Your task to perform on an android device: open app "Truecaller" (install if not already installed) Image 0: 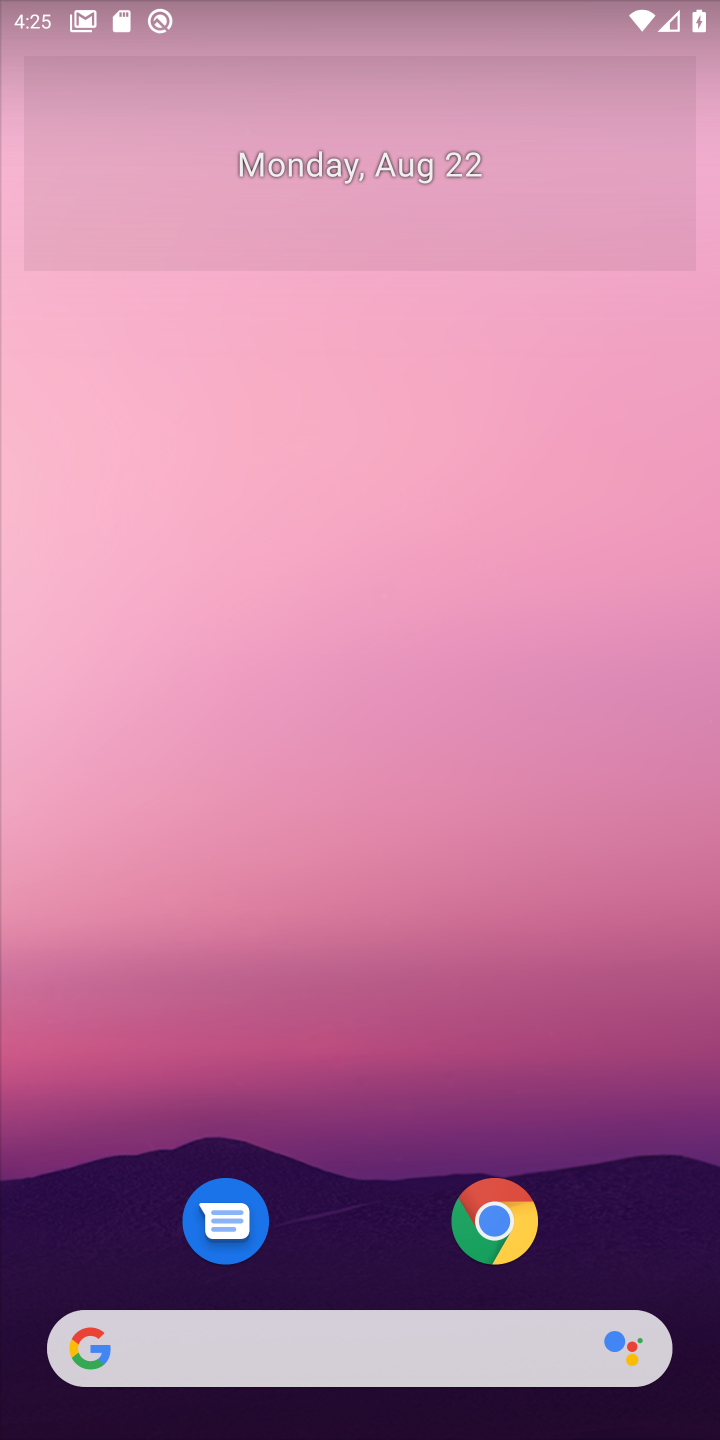
Step 0: drag from (425, 908) to (410, 19)
Your task to perform on an android device: open app "Truecaller" (install if not already installed) Image 1: 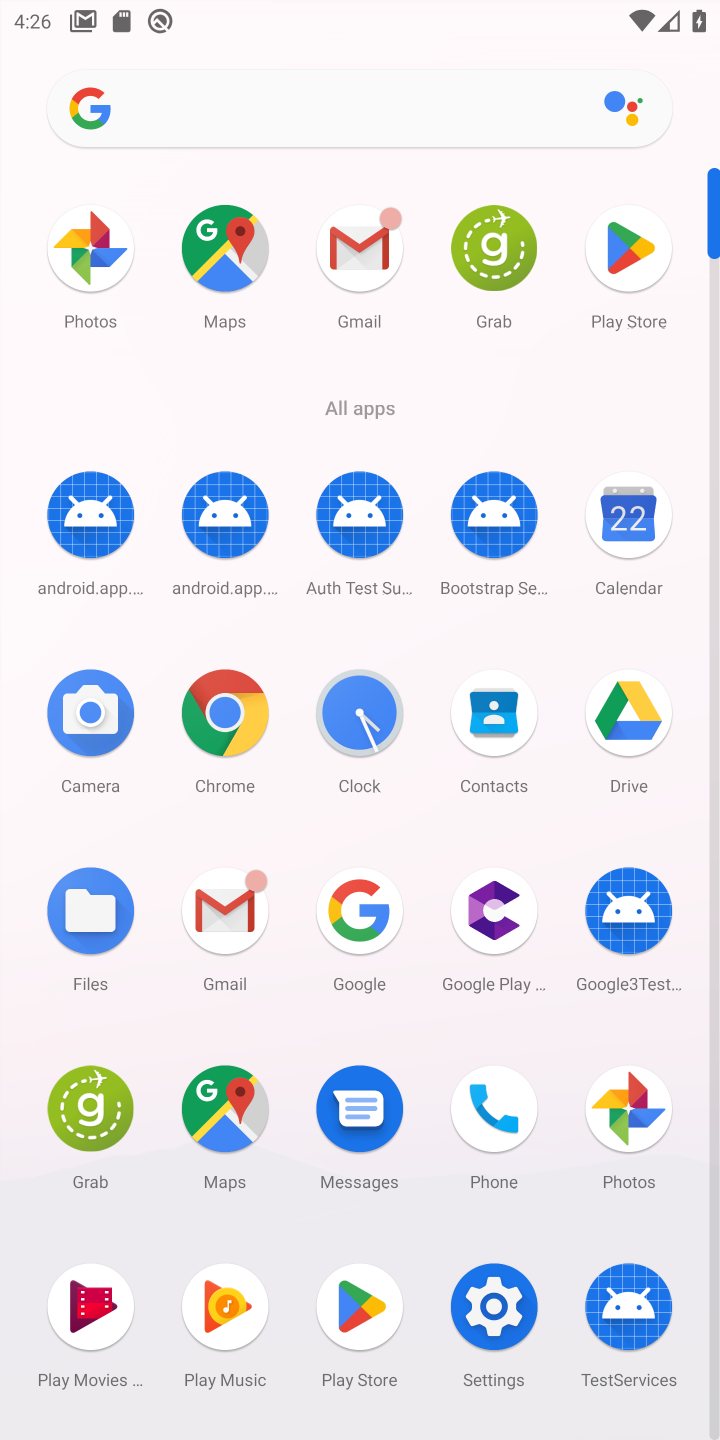
Step 1: click (618, 251)
Your task to perform on an android device: open app "Truecaller" (install if not already installed) Image 2: 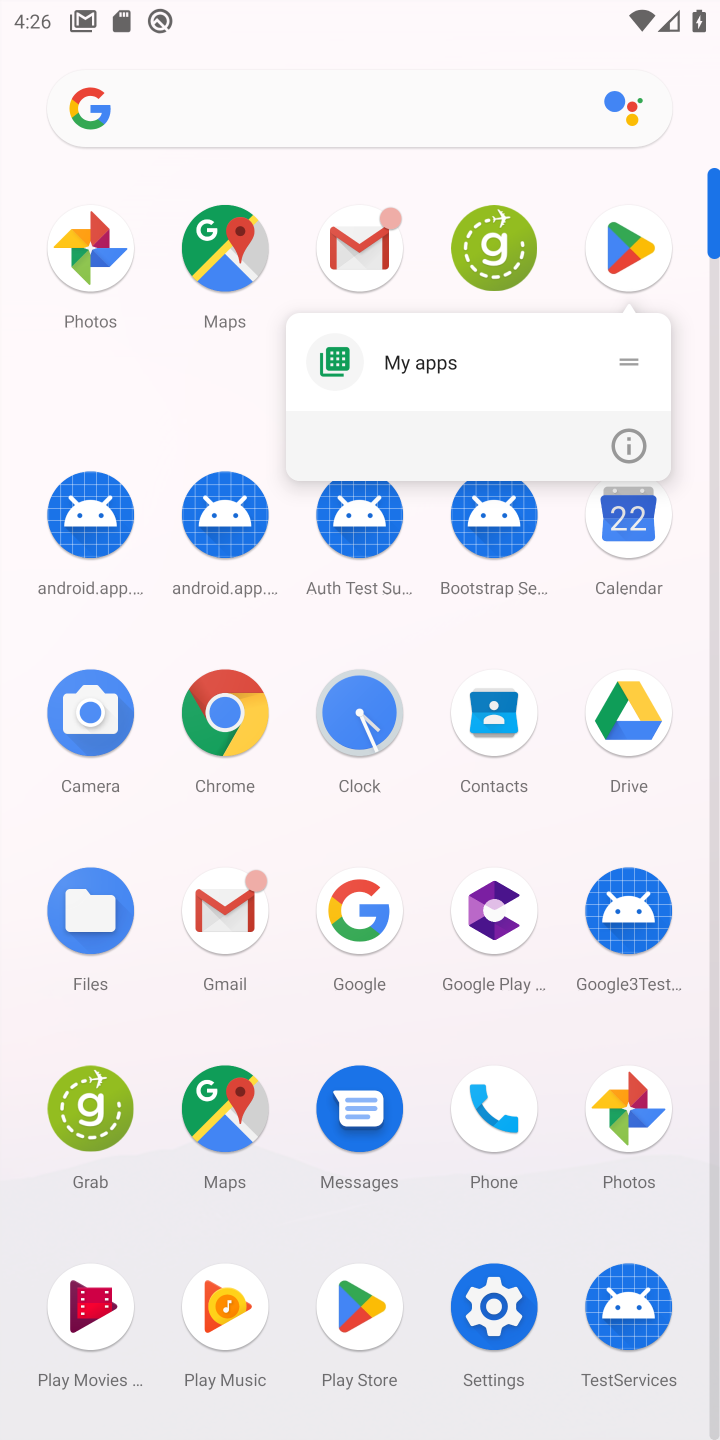
Step 2: click (618, 251)
Your task to perform on an android device: open app "Truecaller" (install if not already installed) Image 3: 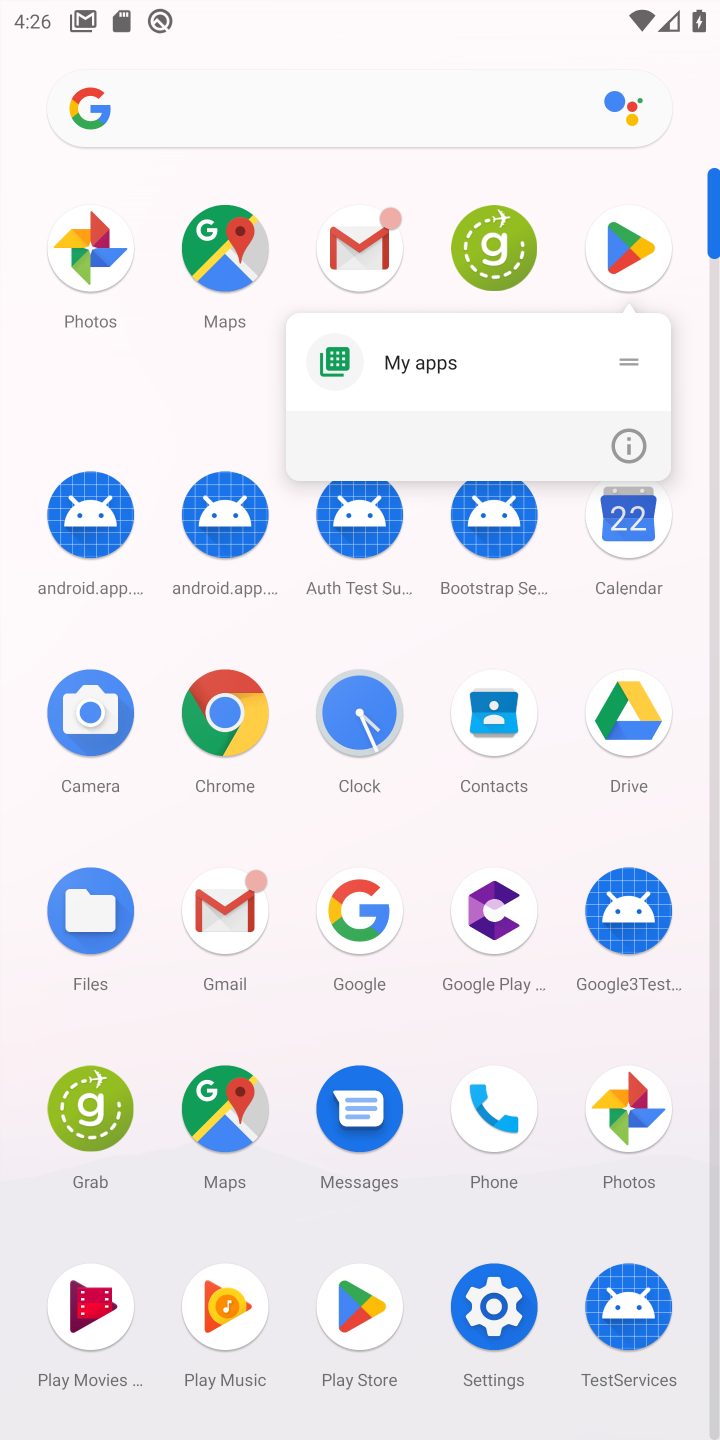
Step 3: click (618, 249)
Your task to perform on an android device: open app "Truecaller" (install if not already installed) Image 4: 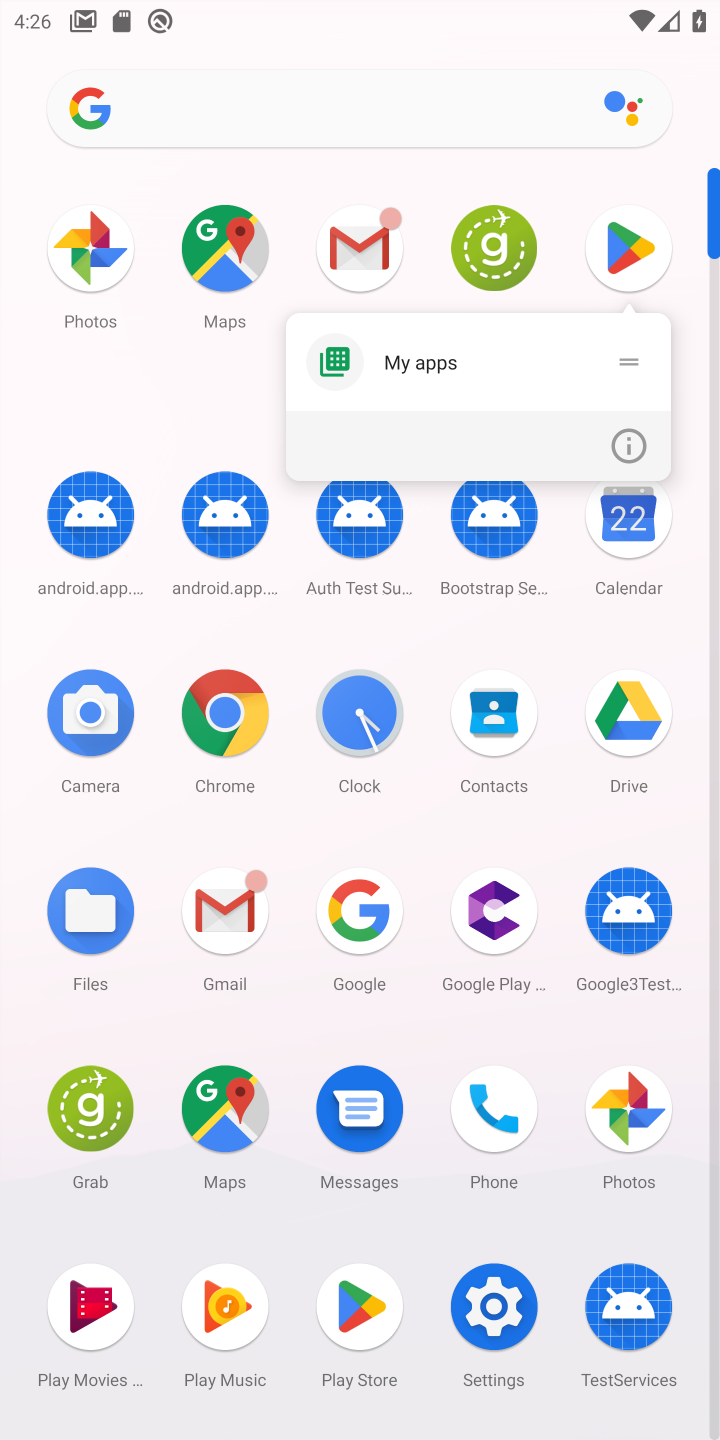
Step 4: click (618, 249)
Your task to perform on an android device: open app "Truecaller" (install if not already installed) Image 5: 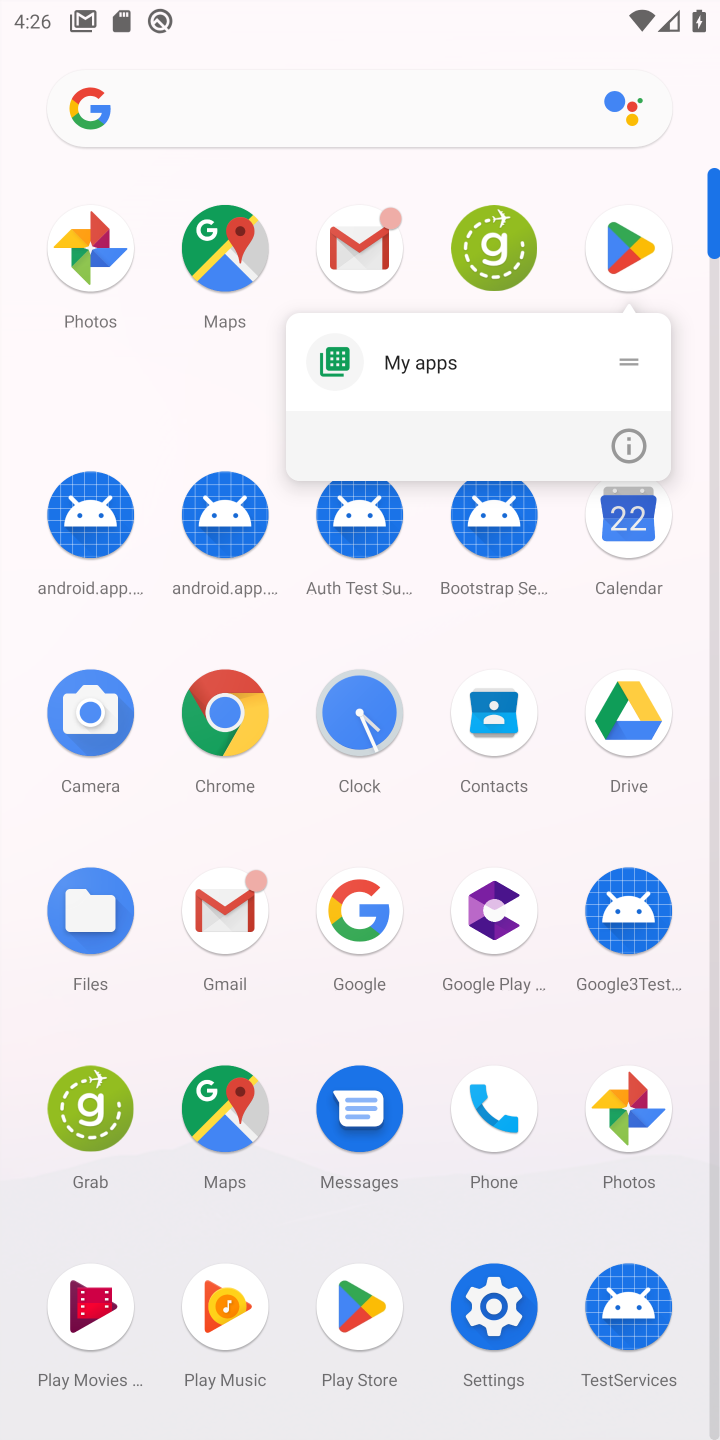
Step 5: click (605, 241)
Your task to perform on an android device: open app "Truecaller" (install if not already installed) Image 6: 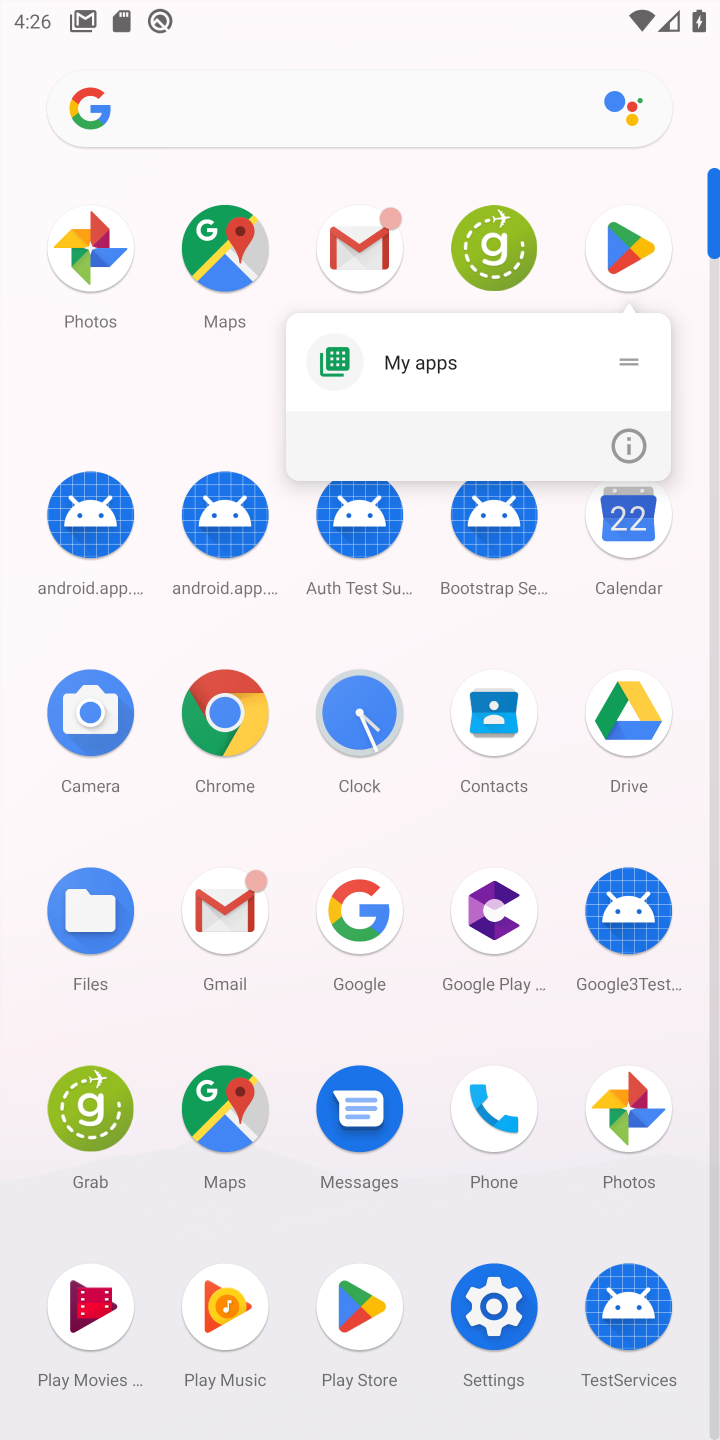
Step 6: click (603, 236)
Your task to perform on an android device: open app "Truecaller" (install if not already installed) Image 7: 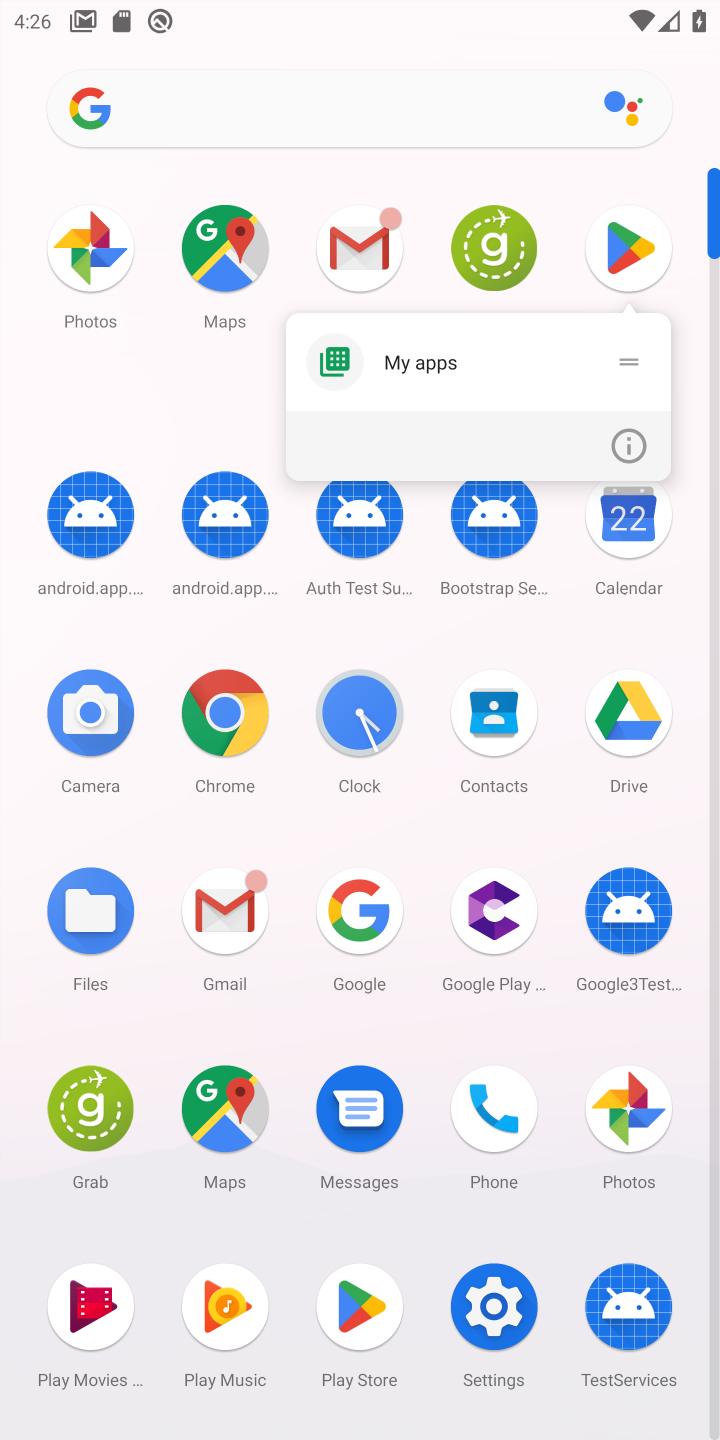
Step 7: click (617, 260)
Your task to perform on an android device: open app "Truecaller" (install if not already installed) Image 8: 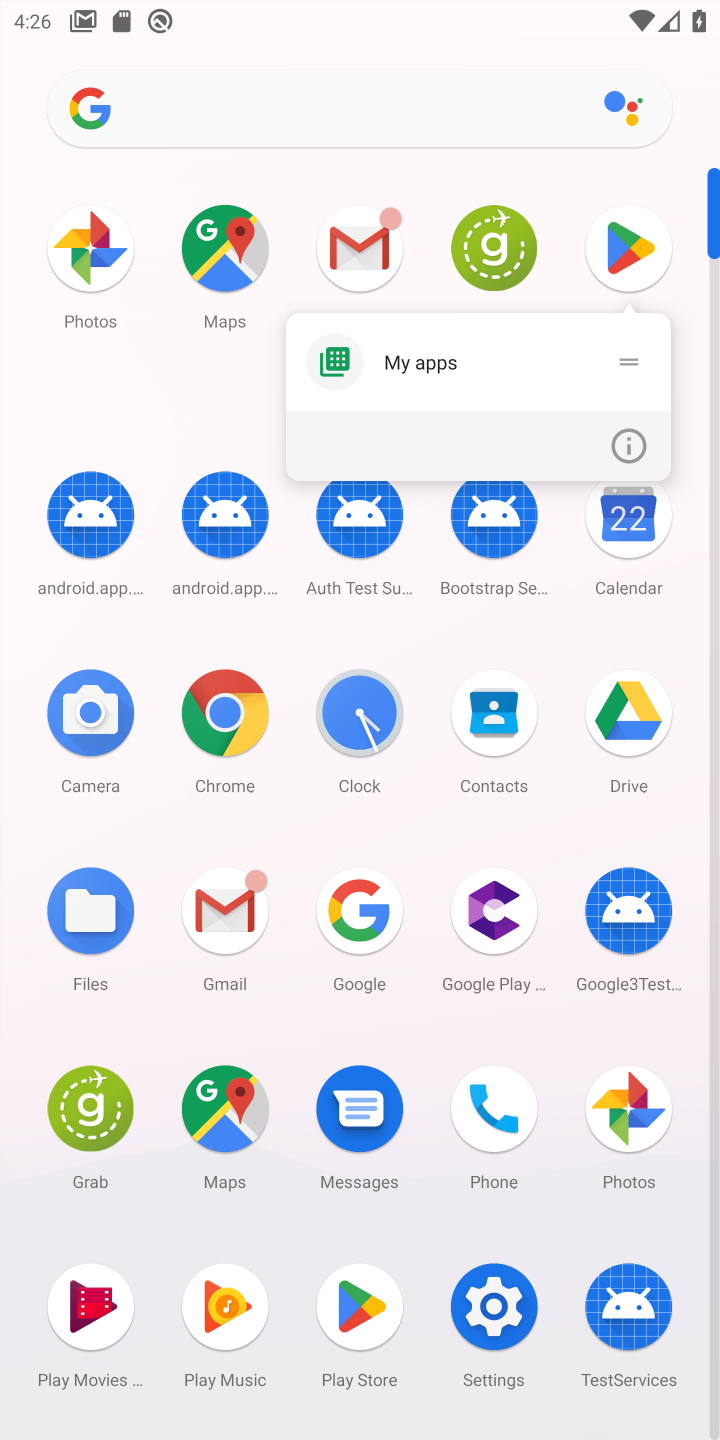
Step 8: click (634, 255)
Your task to perform on an android device: open app "Truecaller" (install if not already installed) Image 9: 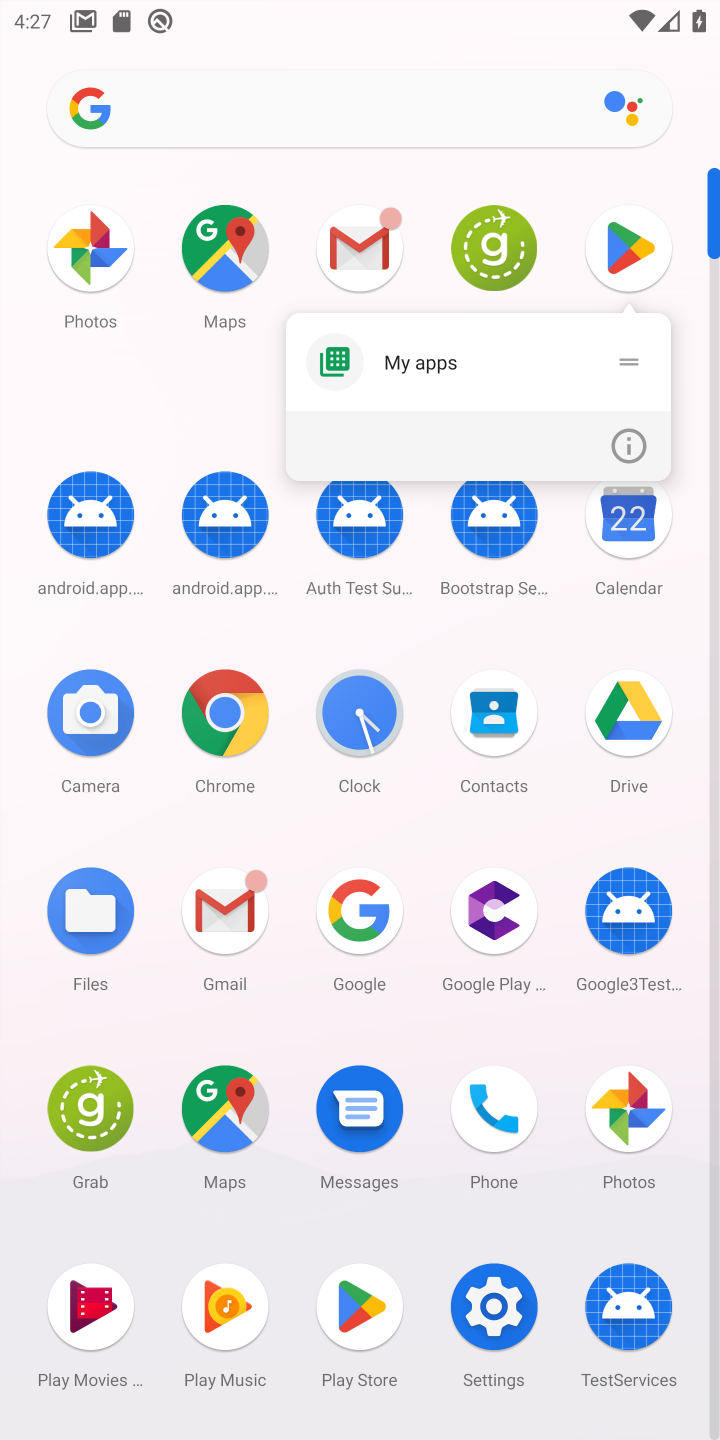
Step 9: click (617, 255)
Your task to perform on an android device: open app "Truecaller" (install if not already installed) Image 10: 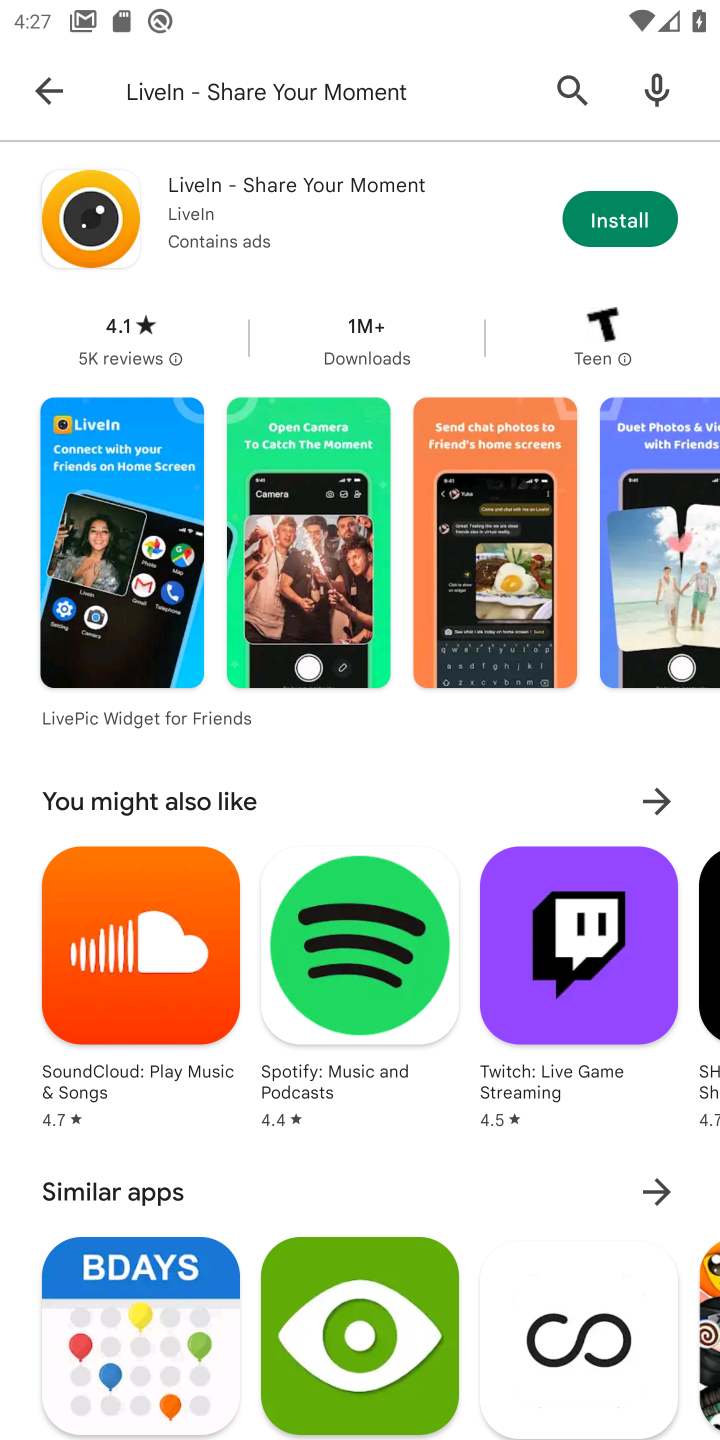
Step 10: press back button
Your task to perform on an android device: open app "Truecaller" (install if not already installed) Image 11: 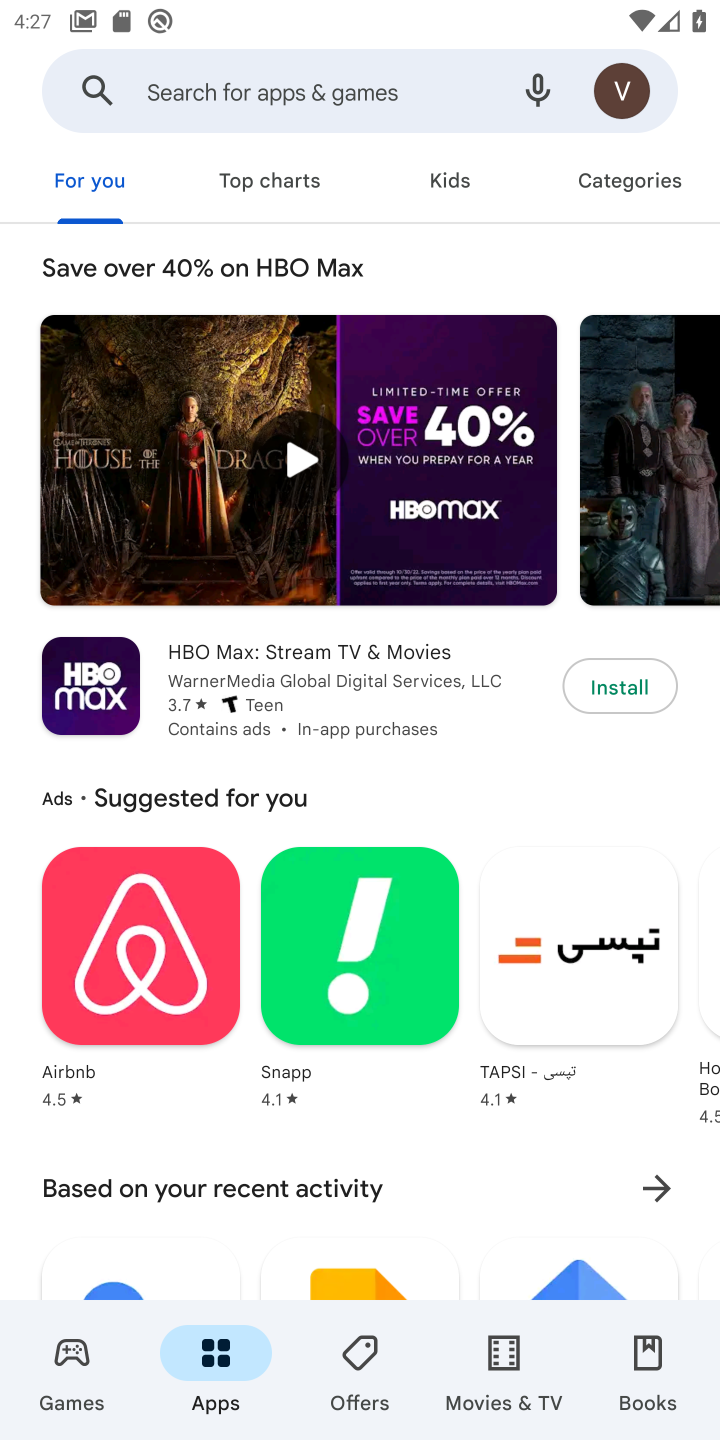
Step 11: click (198, 91)
Your task to perform on an android device: open app "Truecaller" (install if not already installed) Image 12: 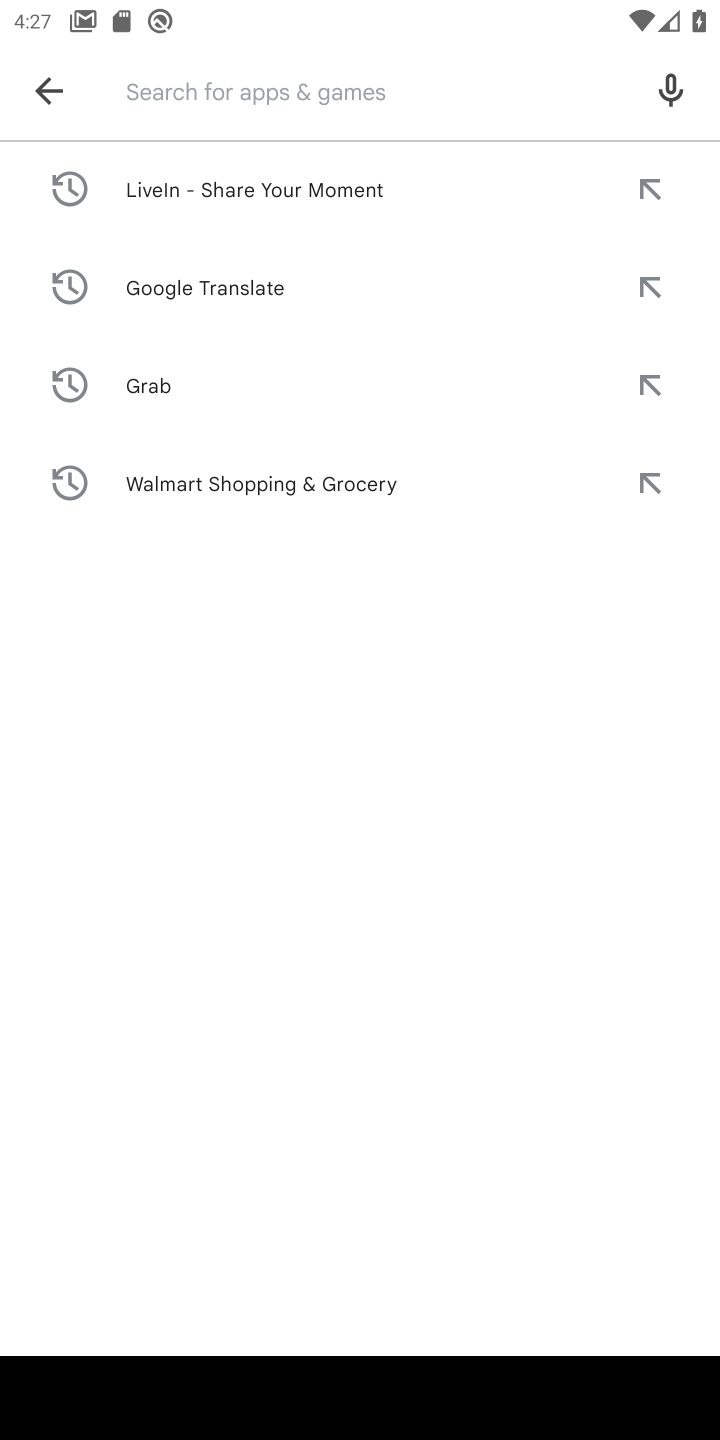
Step 12: type "Truecaller"
Your task to perform on an android device: open app "Truecaller" (install if not already installed) Image 13: 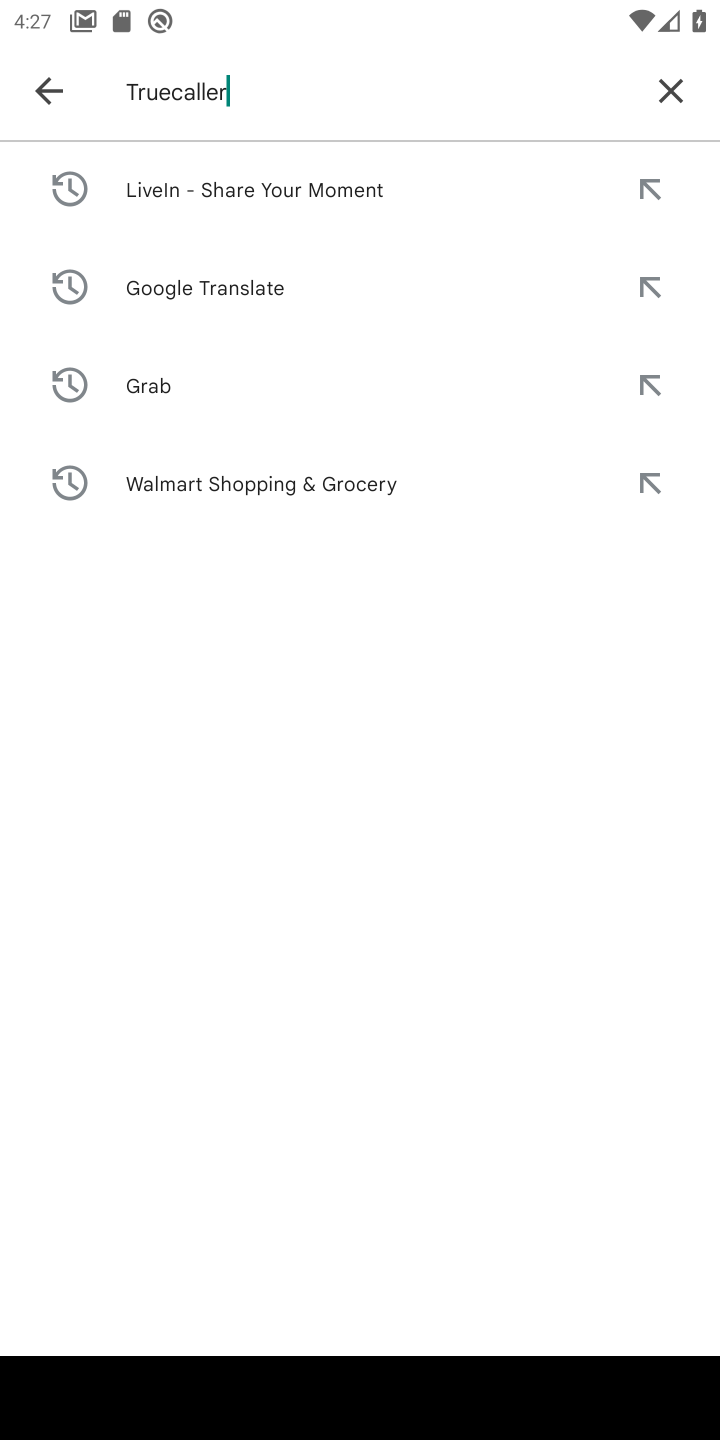
Step 13: press enter
Your task to perform on an android device: open app "Truecaller" (install if not already installed) Image 14: 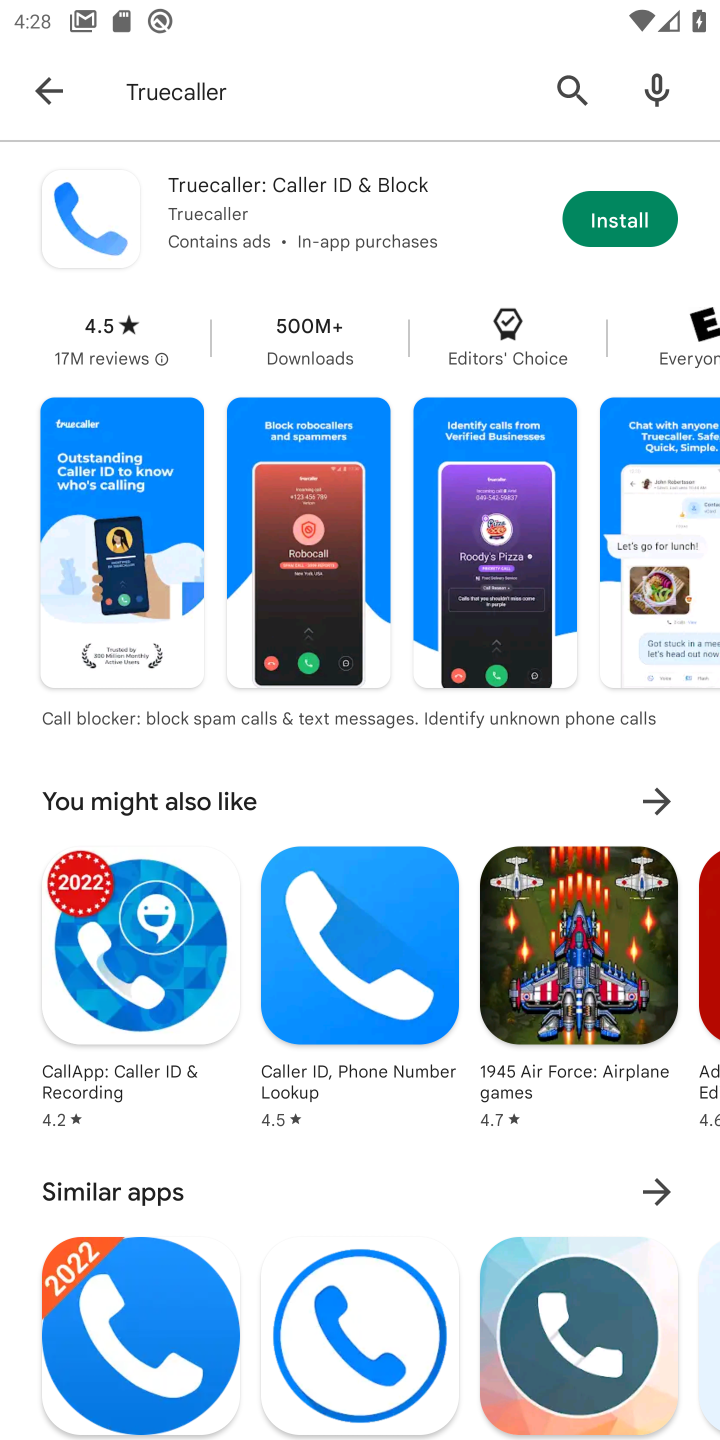
Step 14: click (626, 214)
Your task to perform on an android device: open app "Truecaller" (install if not already installed) Image 15: 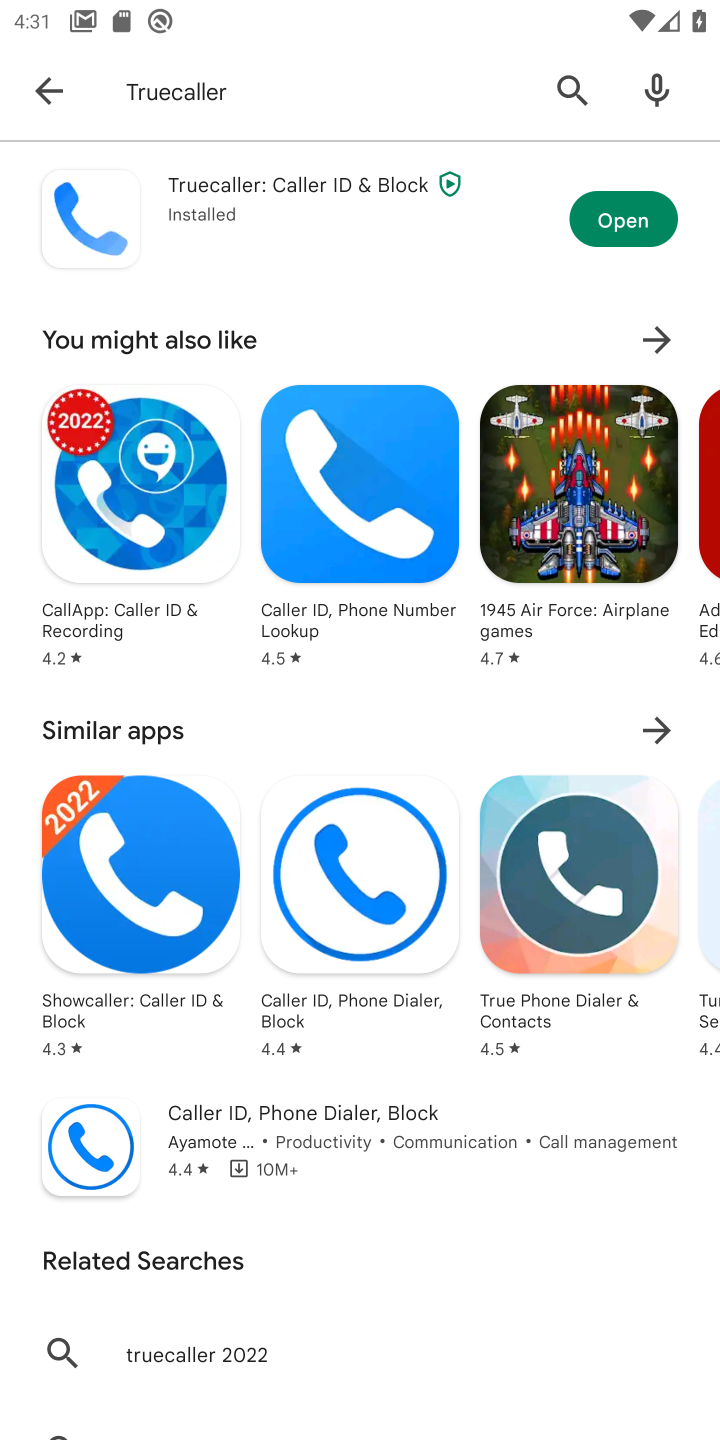
Step 15: click (638, 223)
Your task to perform on an android device: open app "Truecaller" (install if not already installed) Image 16: 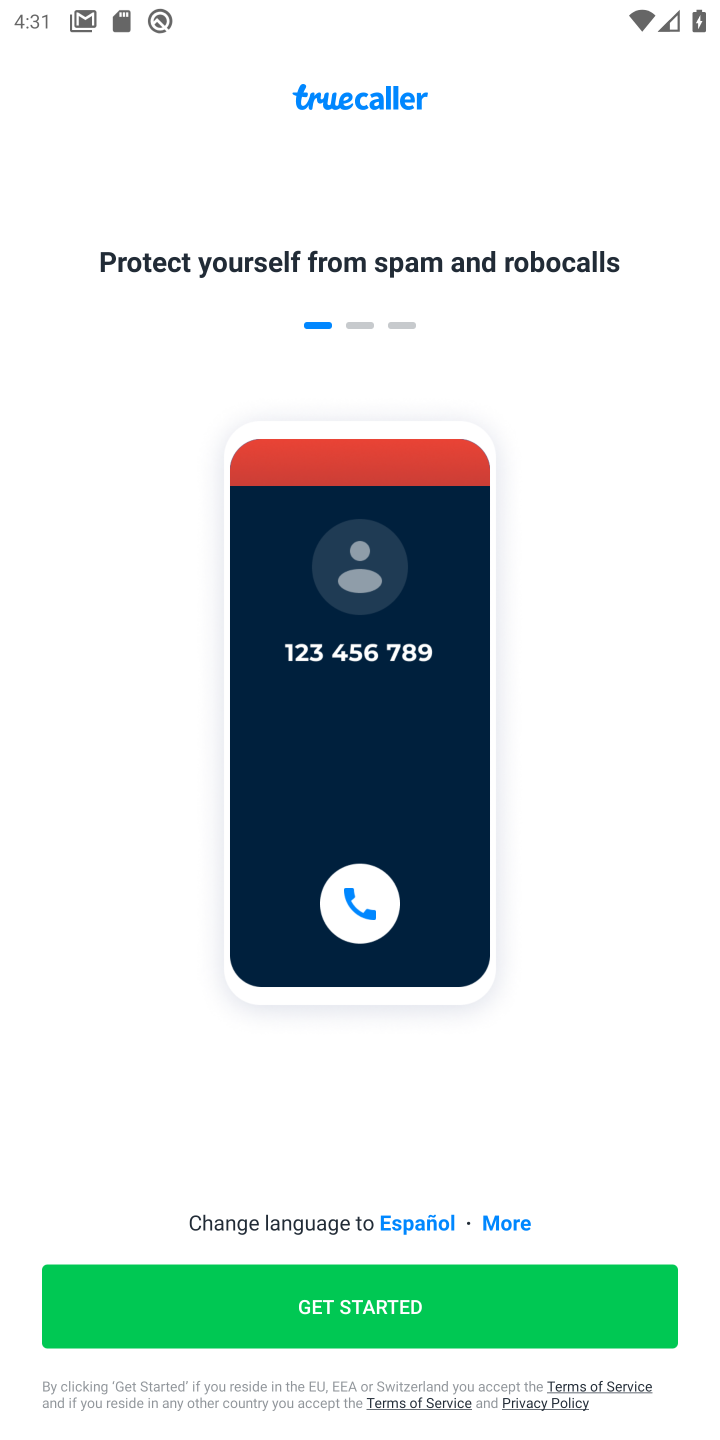
Step 16: task complete